Your task to perform on an android device: turn off improve location accuracy Image 0: 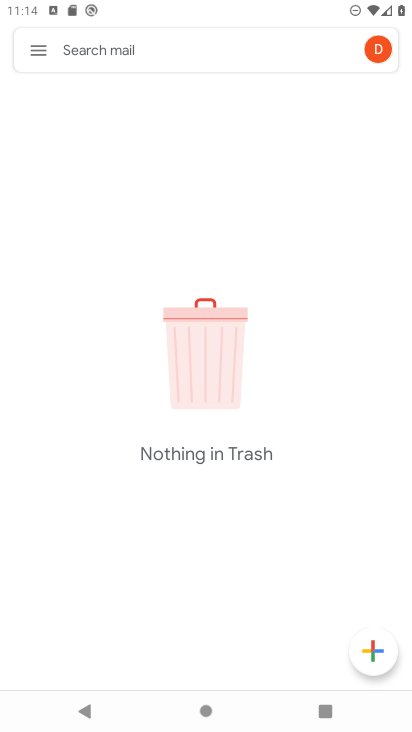
Step 0: press home button
Your task to perform on an android device: turn off improve location accuracy Image 1: 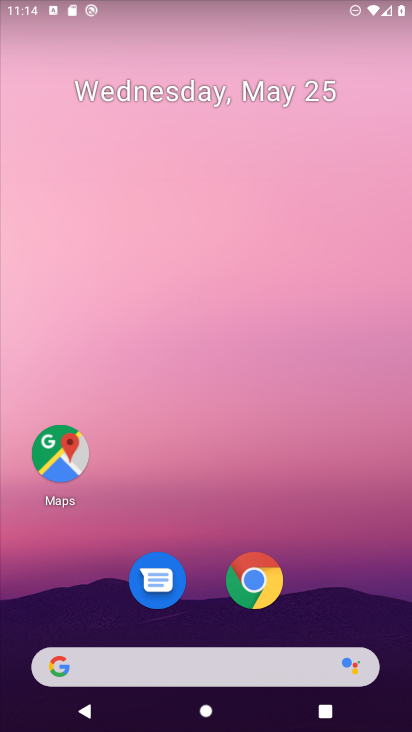
Step 1: drag from (14, 610) to (251, 131)
Your task to perform on an android device: turn off improve location accuracy Image 2: 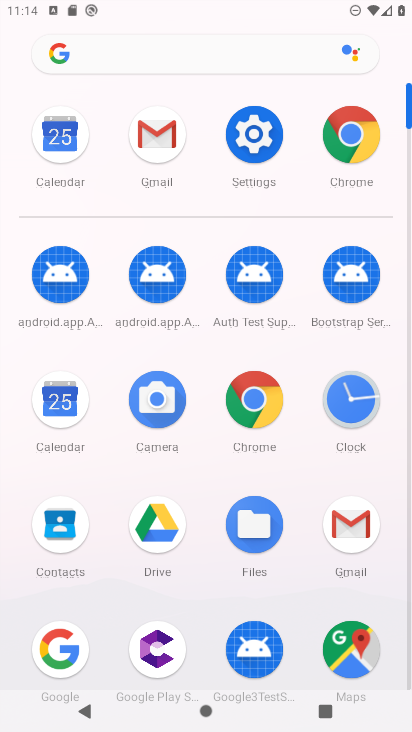
Step 2: click (254, 134)
Your task to perform on an android device: turn off improve location accuracy Image 3: 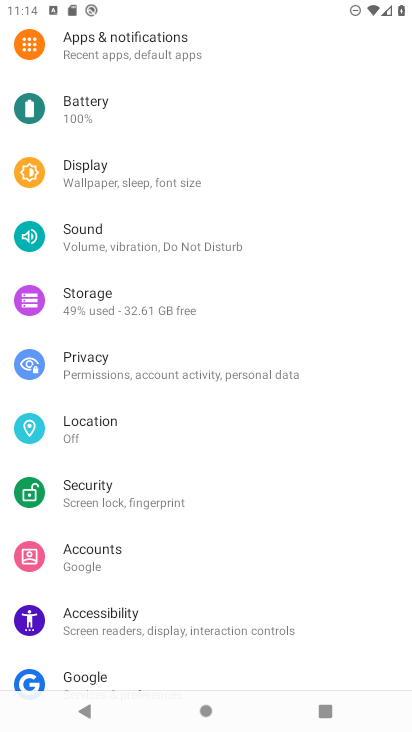
Step 3: click (95, 425)
Your task to perform on an android device: turn off improve location accuracy Image 4: 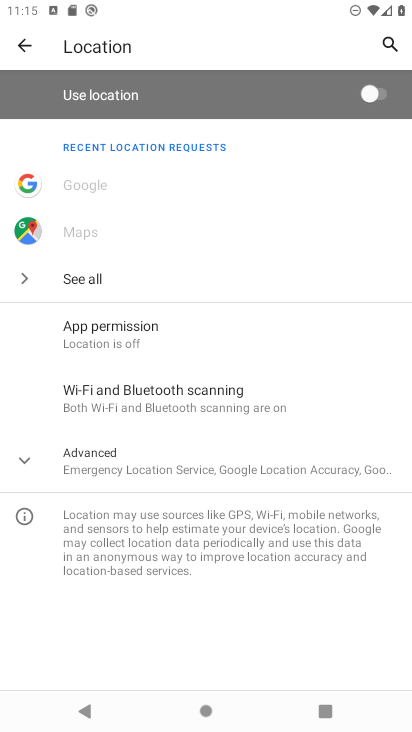
Step 4: click (141, 469)
Your task to perform on an android device: turn off improve location accuracy Image 5: 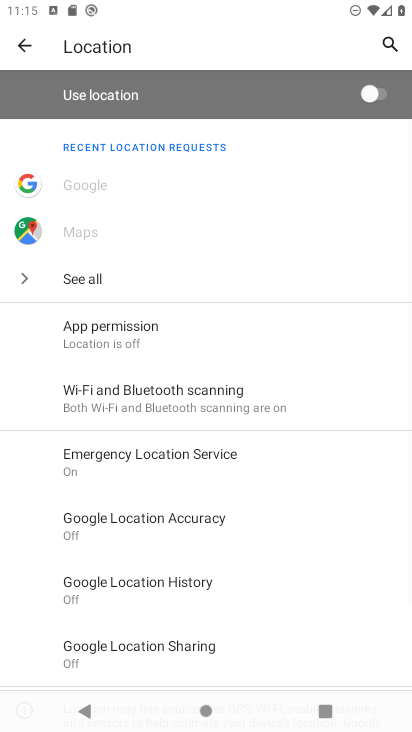
Step 5: click (105, 457)
Your task to perform on an android device: turn off improve location accuracy Image 6: 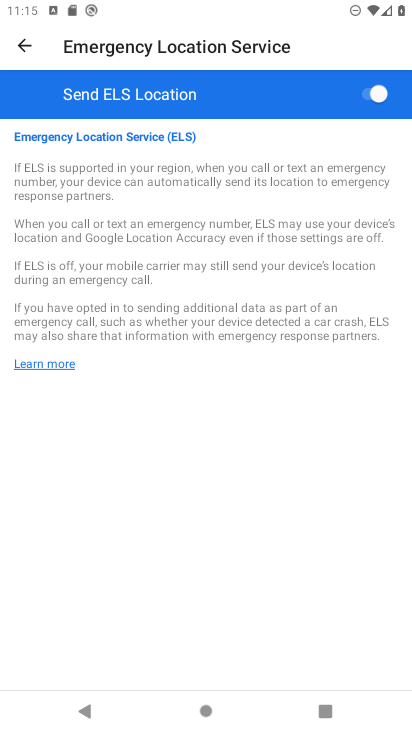
Step 6: press back button
Your task to perform on an android device: turn off improve location accuracy Image 7: 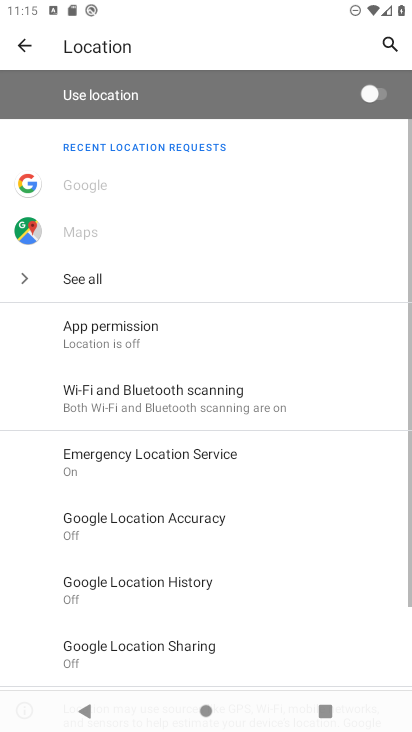
Step 7: click (154, 519)
Your task to perform on an android device: turn off improve location accuracy Image 8: 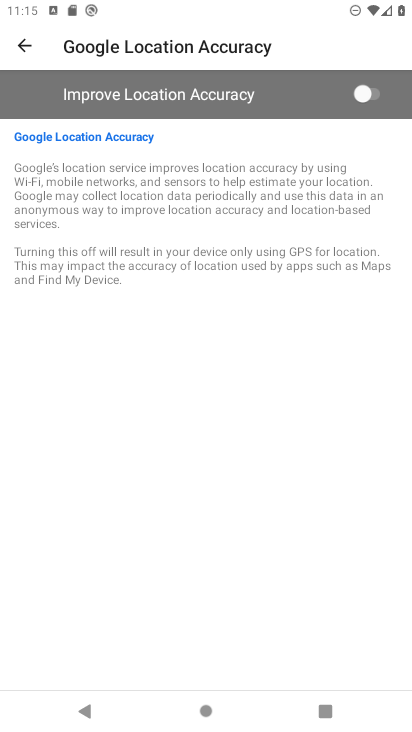
Step 8: press home button
Your task to perform on an android device: turn off improve location accuracy Image 9: 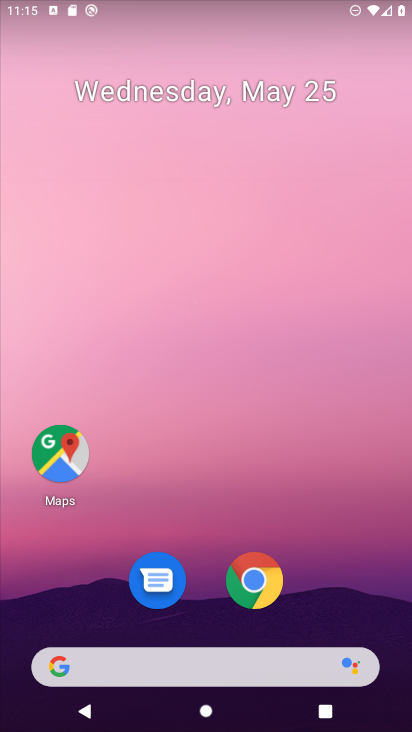
Step 9: drag from (24, 555) to (328, 53)
Your task to perform on an android device: turn off improve location accuracy Image 10: 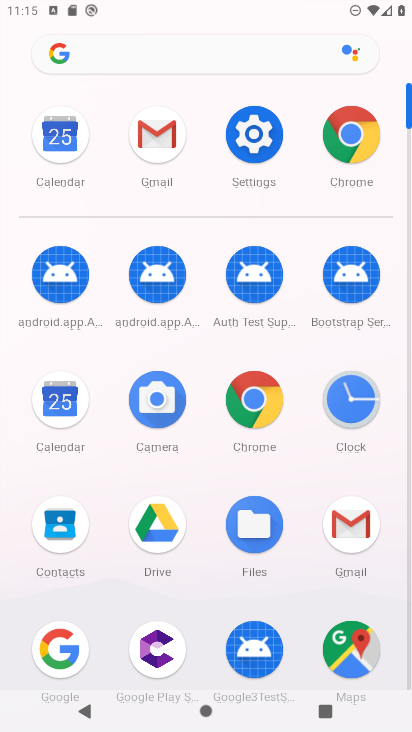
Step 10: click (237, 130)
Your task to perform on an android device: turn off improve location accuracy Image 11: 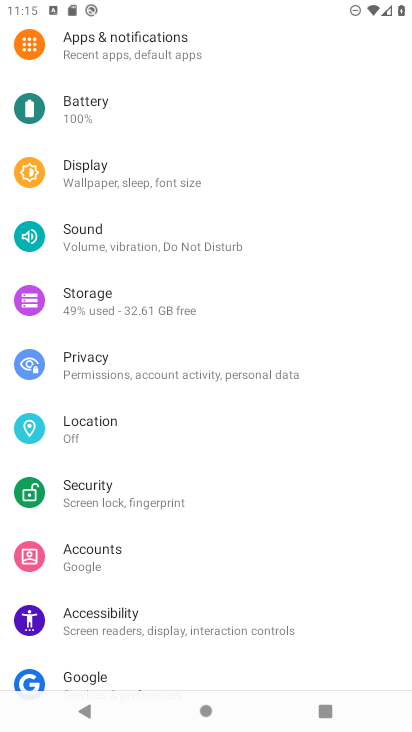
Step 11: click (98, 437)
Your task to perform on an android device: turn off improve location accuracy Image 12: 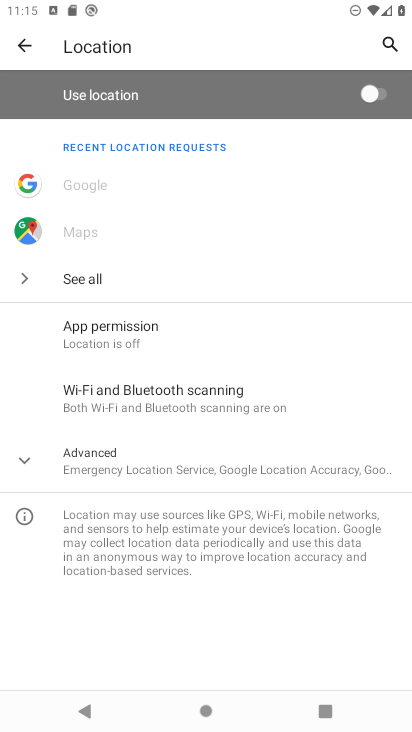
Step 12: click (122, 465)
Your task to perform on an android device: turn off improve location accuracy Image 13: 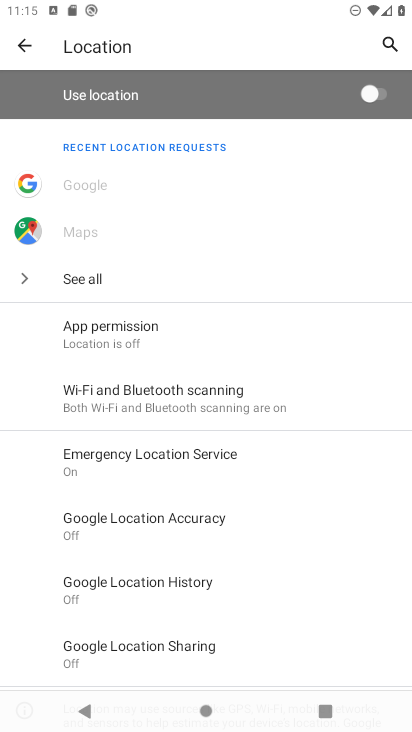
Step 13: click (211, 519)
Your task to perform on an android device: turn off improve location accuracy Image 14: 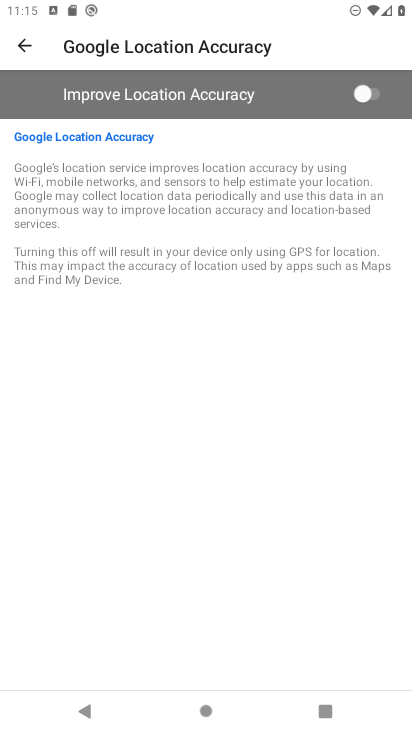
Step 14: task complete